Your task to perform on an android device: Open Yahoo.com Image 0: 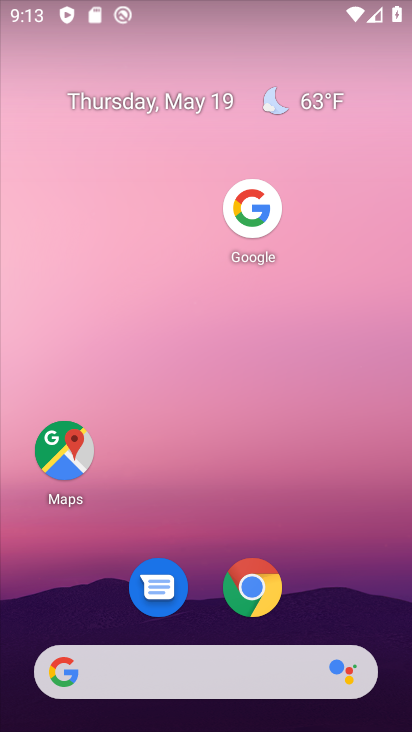
Step 0: drag from (191, 630) to (310, 67)
Your task to perform on an android device: Open Yahoo.com Image 1: 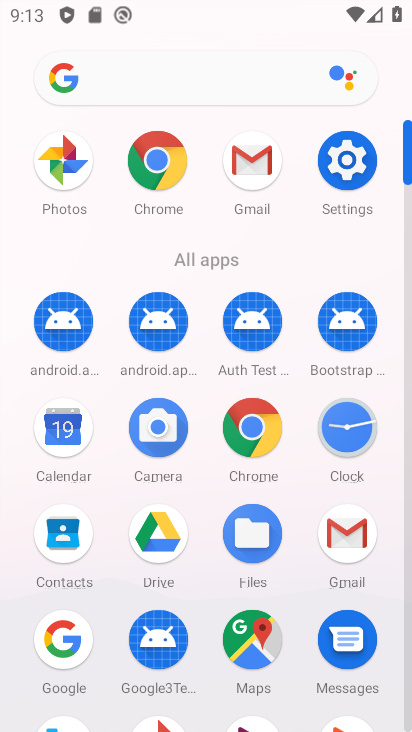
Step 1: click (155, 173)
Your task to perform on an android device: Open Yahoo.com Image 2: 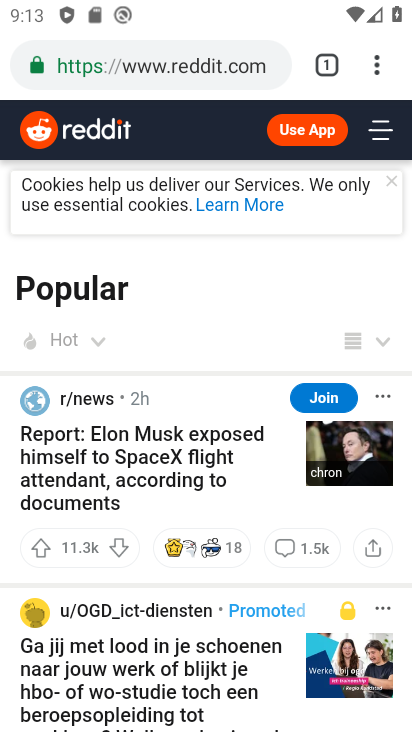
Step 2: click (326, 71)
Your task to perform on an android device: Open Yahoo.com Image 3: 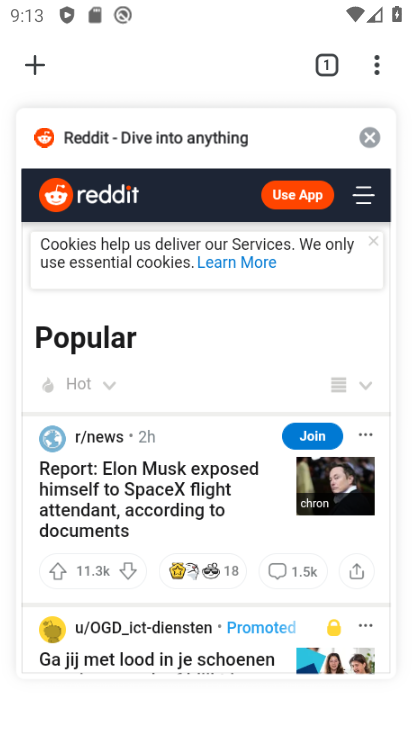
Step 3: click (26, 72)
Your task to perform on an android device: Open Yahoo.com Image 4: 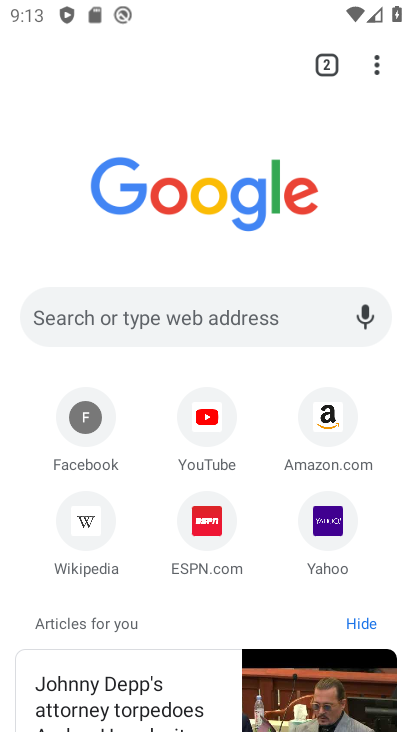
Step 4: click (328, 523)
Your task to perform on an android device: Open Yahoo.com Image 5: 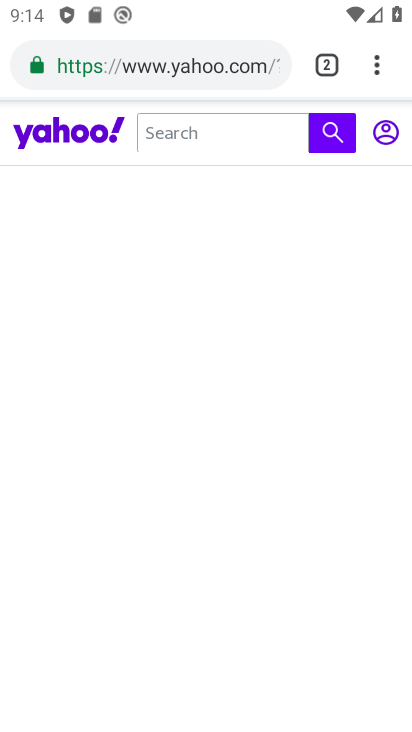
Step 5: task complete